Your task to perform on an android device: Open network settings Image 0: 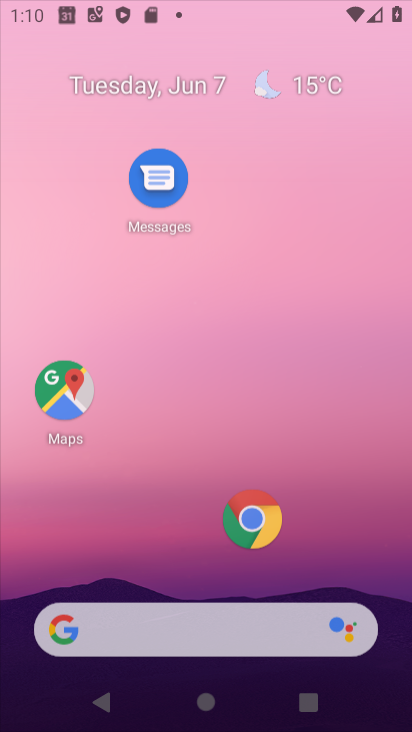
Step 0: click (205, 321)
Your task to perform on an android device: Open network settings Image 1: 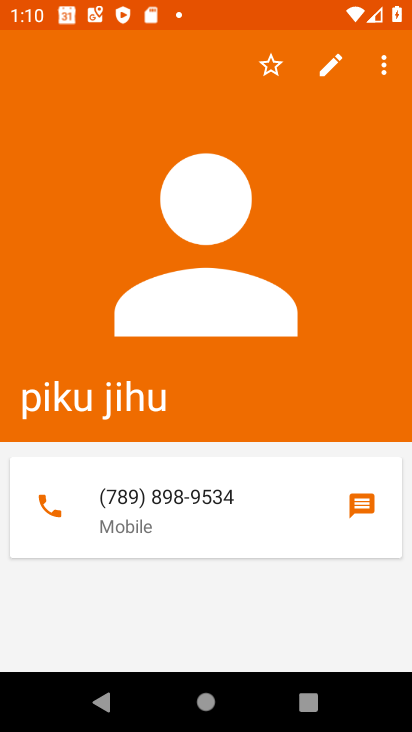
Step 1: press home button
Your task to perform on an android device: Open network settings Image 2: 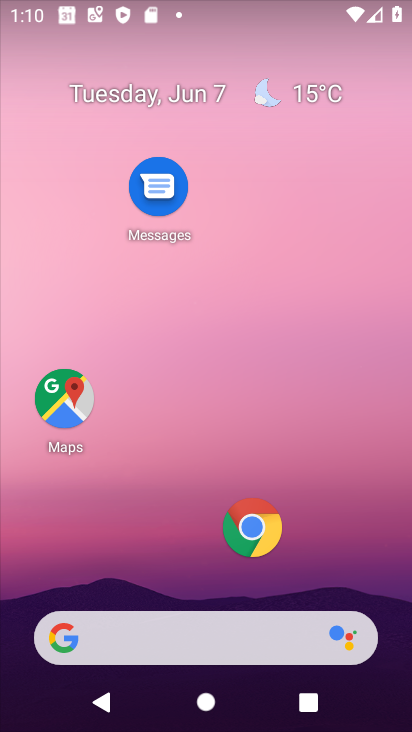
Step 2: drag from (173, 616) to (193, 417)
Your task to perform on an android device: Open network settings Image 3: 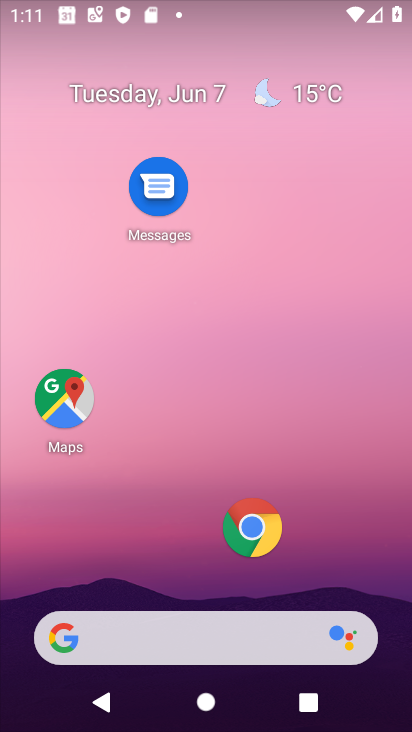
Step 3: drag from (190, 598) to (221, 253)
Your task to perform on an android device: Open network settings Image 4: 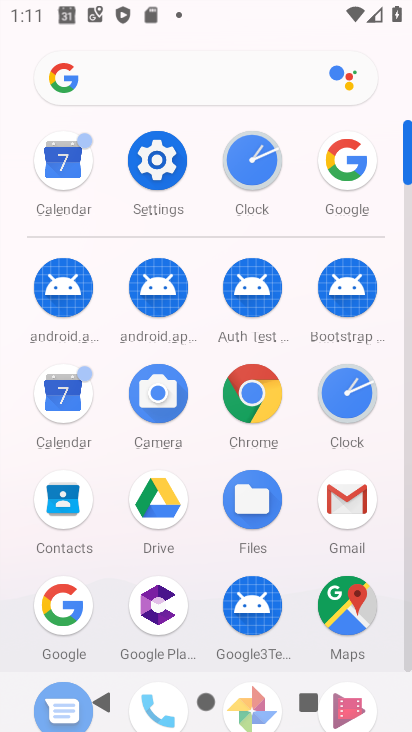
Step 4: click (144, 160)
Your task to perform on an android device: Open network settings Image 5: 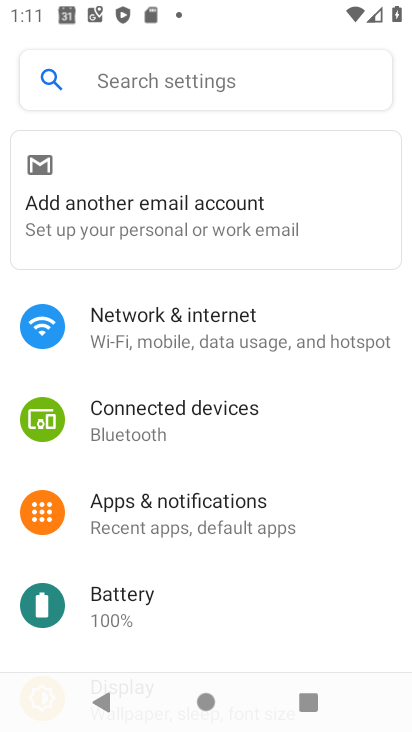
Step 5: click (147, 331)
Your task to perform on an android device: Open network settings Image 6: 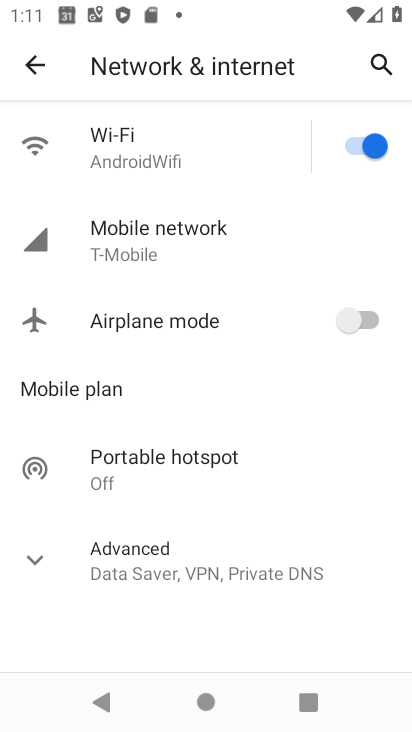
Step 6: click (107, 559)
Your task to perform on an android device: Open network settings Image 7: 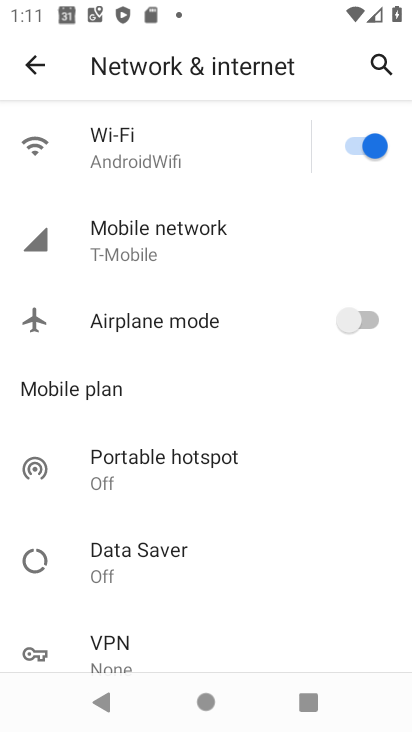
Step 7: task complete